Your task to perform on an android device: Turn on the flashlight Image 0: 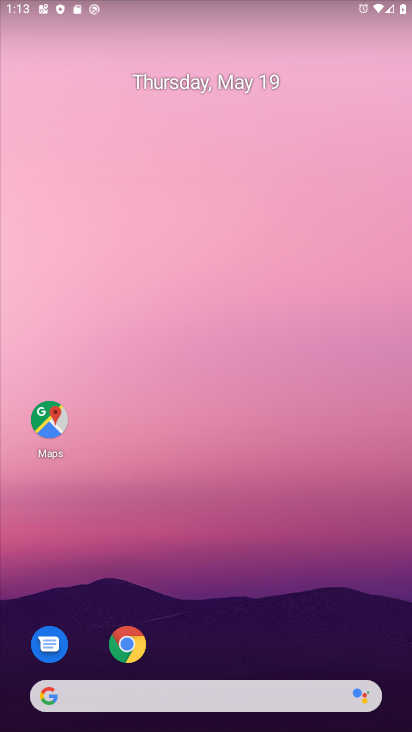
Step 0: drag from (297, 534) to (242, 33)
Your task to perform on an android device: Turn on the flashlight Image 1: 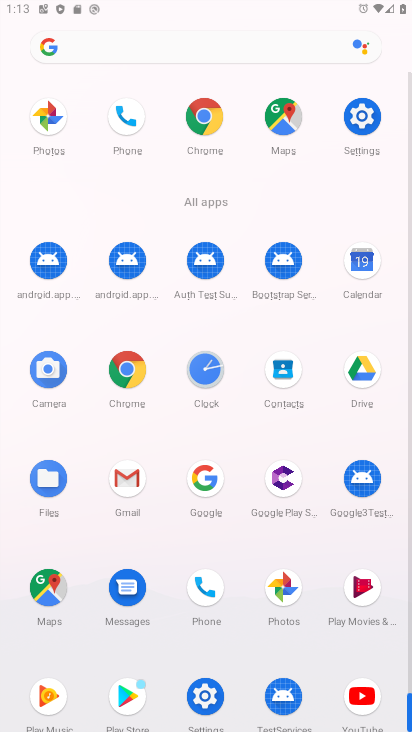
Step 1: drag from (250, 497) to (192, 63)
Your task to perform on an android device: Turn on the flashlight Image 2: 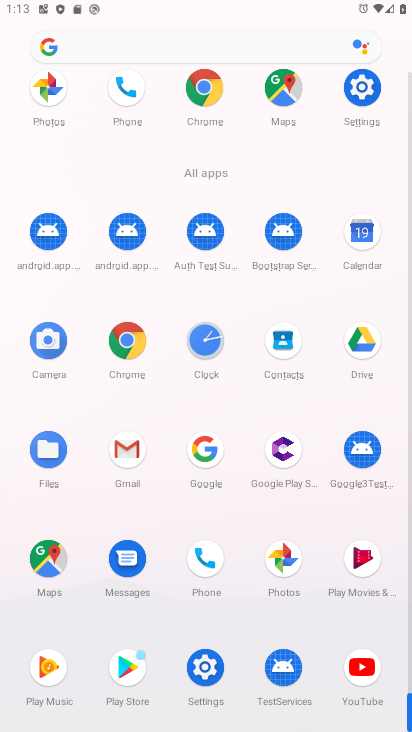
Step 2: drag from (231, 484) to (173, 45)
Your task to perform on an android device: Turn on the flashlight Image 3: 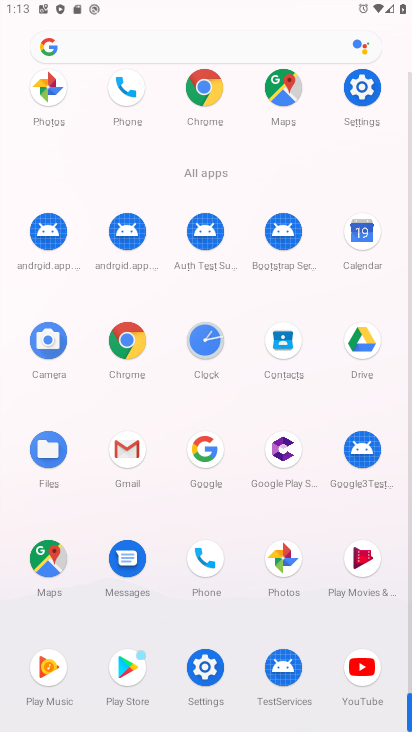
Step 3: drag from (238, 412) to (226, 47)
Your task to perform on an android device: Turn on the flashlight Image 4: 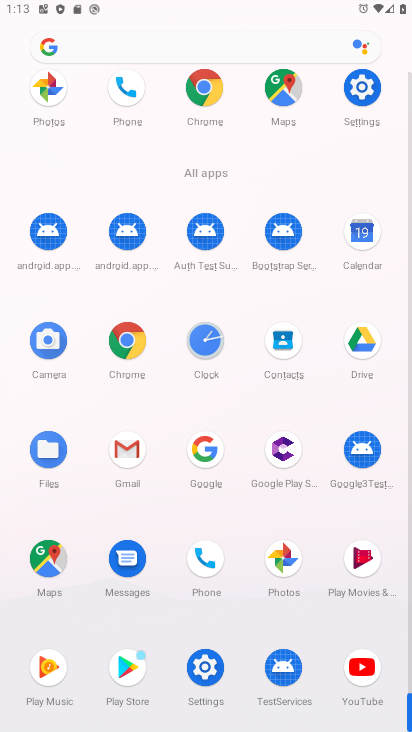
Step 4: drag from (240, 487) to (140, 92)
Your task to perform on an android device: Turn on the flashlight Image 5: 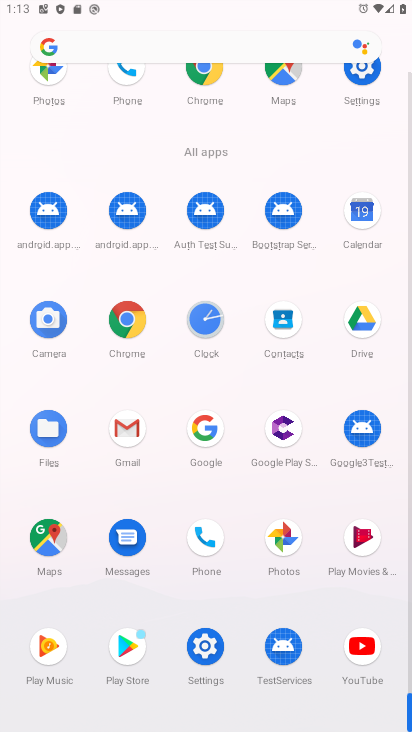
Step 5: click (237, 121)
Your task to perform on an android device: Turn on the flashlight Image 6: 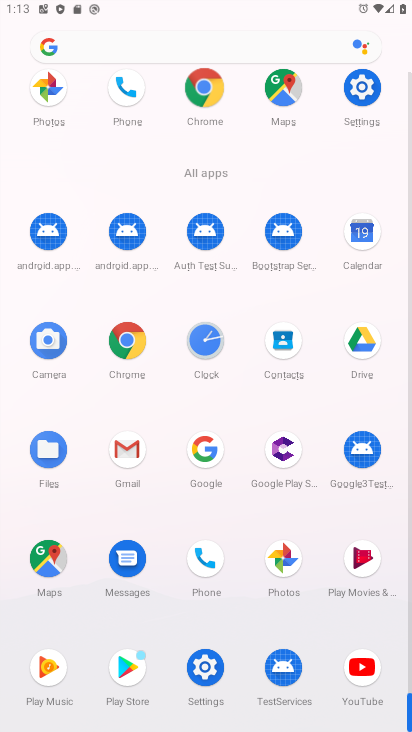
Step 6: task complete